Your task to perform on an android device: Go to privacy settings Image 0: 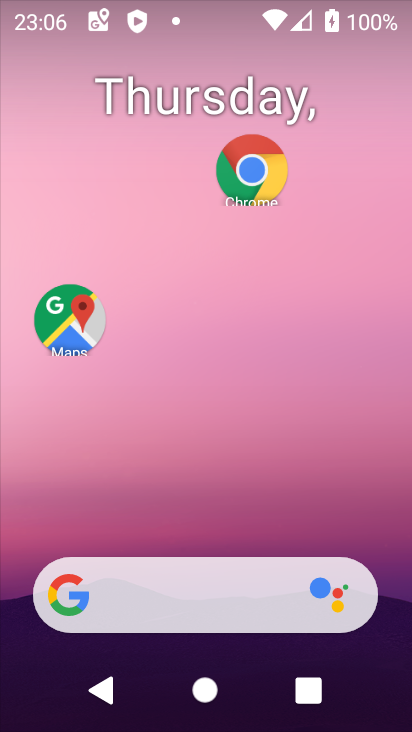
Step 0: drag from (212, 559) to (187, 122)
Your task to perform on an android device: Go to privacy settings Image 1: 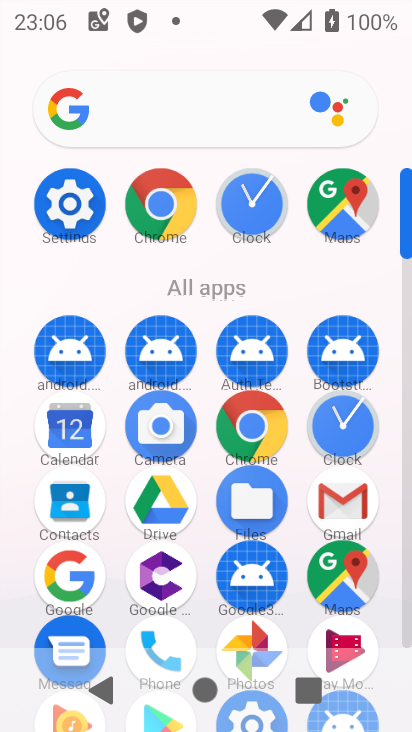
Step 1: click (83, 199)
Your task to perform on an android device: Go to privacy settings Image 2: 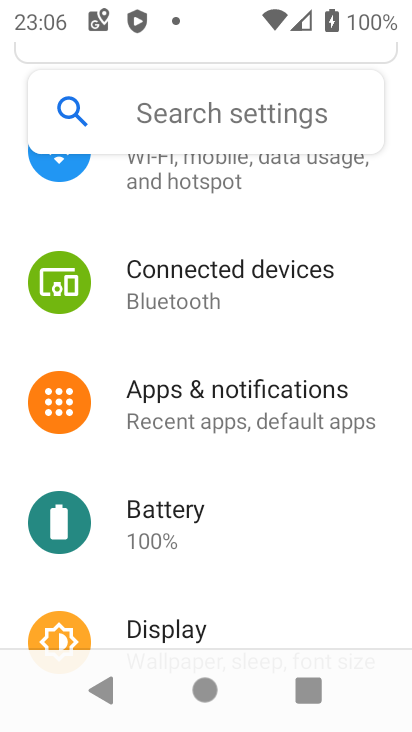
Step 2: drag from (217, 596) to (311, 248)
Your task to perform on an android device: Go to privacy settings Image 3: 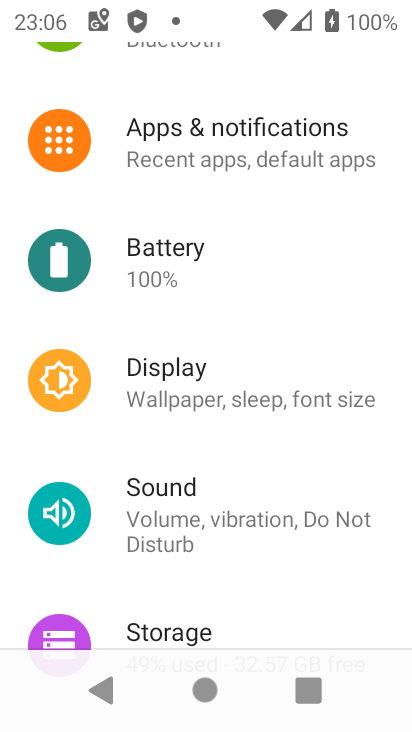
Step 3: drag from (166, 577) to (248, 255)
Your task to perform on an android device: Go to privacy settings Image 4: 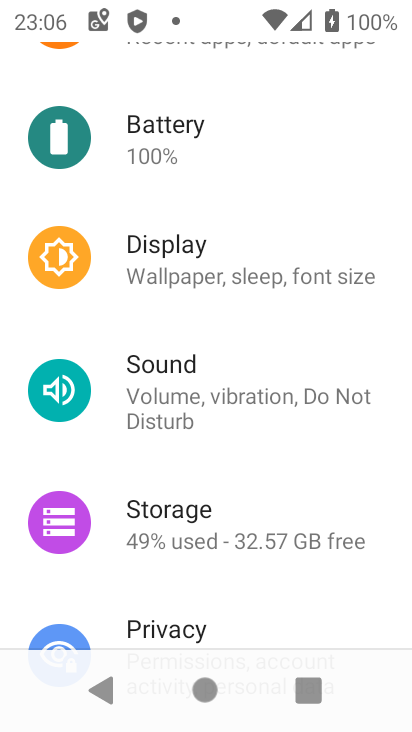
Step 4: click (154, 630)
Your task to perform on an android device: Go to privacy settings Image 5: 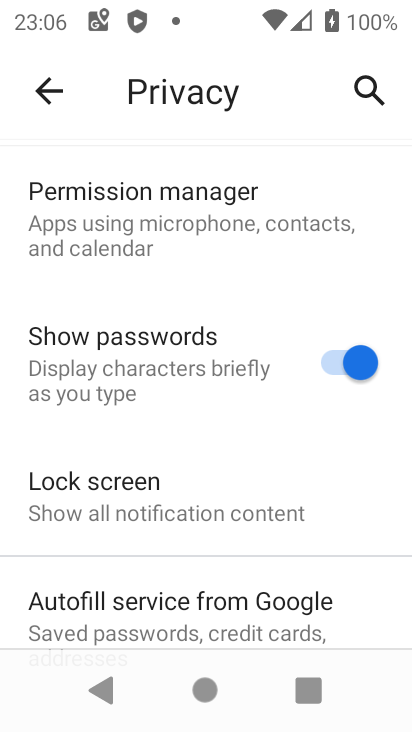
Step 5: drag from (153, 621) to (202, 442)
Your task to perform on an android device: Go to privacy settings Image 6: 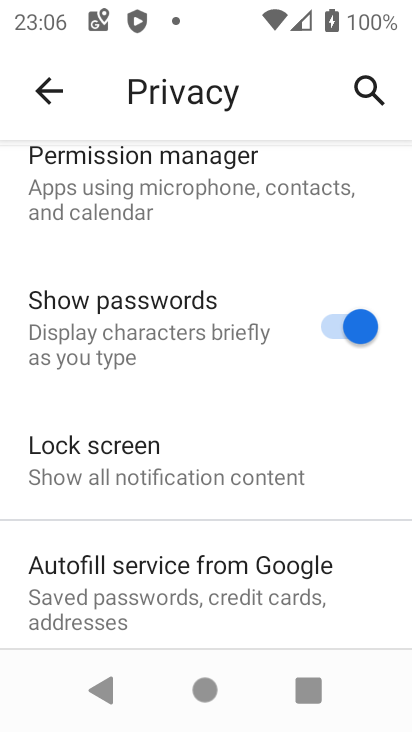
Step 6: drag from (199, 615) to (248, 316)
Your task to perform on an android device: Go to privacy settings Image 7: 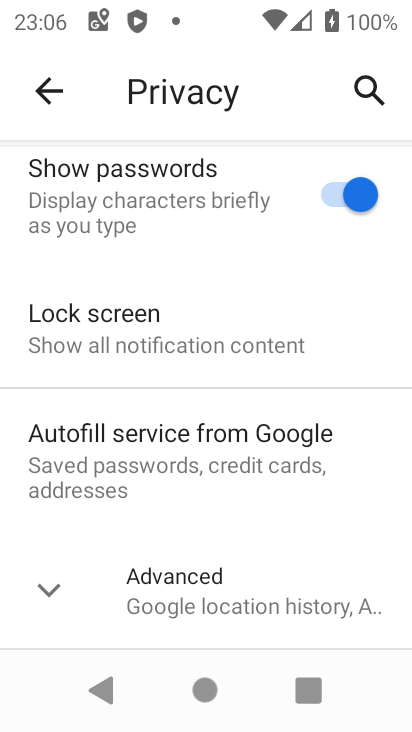
Step 7: click (138, 605)
Your task to perform on an android device: Go to privacy settings Image 8: 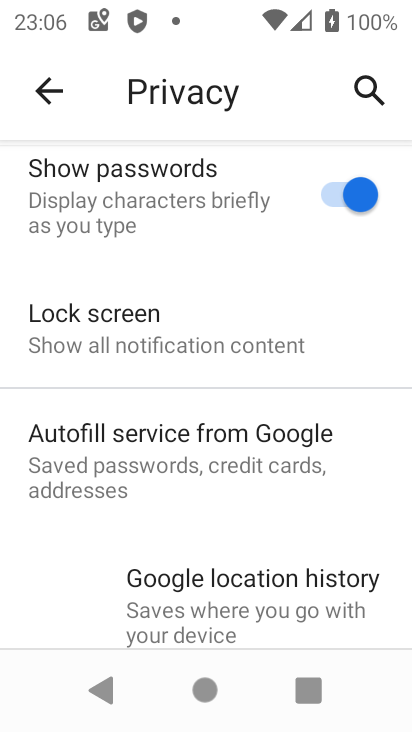
Step 8: task complete